Your task to perform on an android device: Go to CNN.com Image 0: 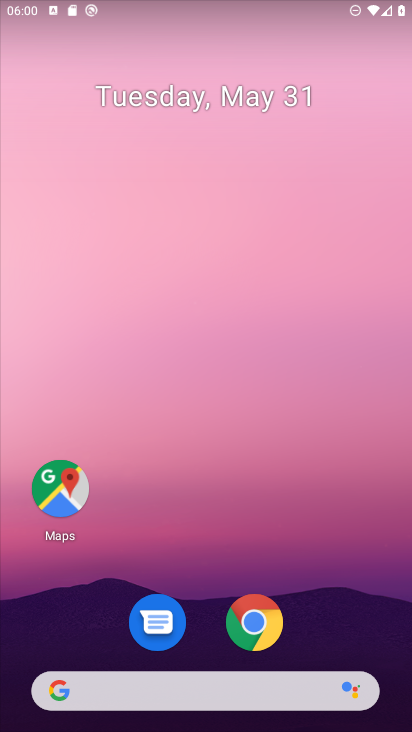
Step 0: drag from (309, 566) to (388, 2)
Your task to perform on an android device: Go to CNN.com Image 1: 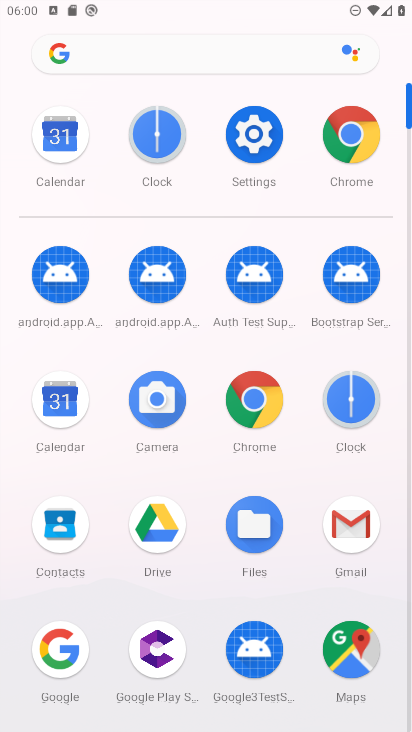
Step 1: click (260, 412)
Your task to perform on an android device: Go to CNN.com Image 2: 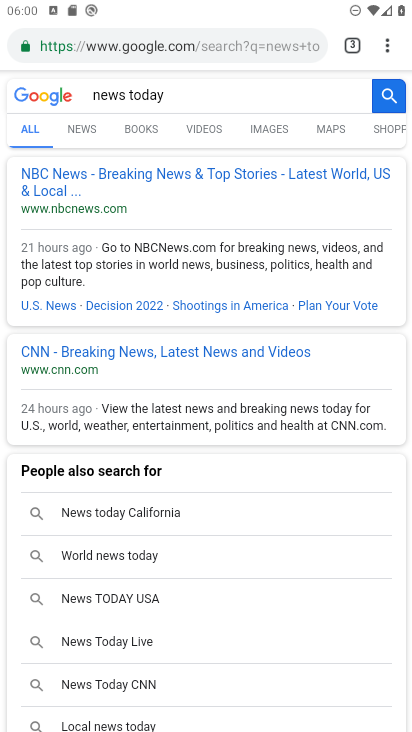
Step 2: click (272, 47)
Your task to perform on an android device: Go to CNN.com Image 3: 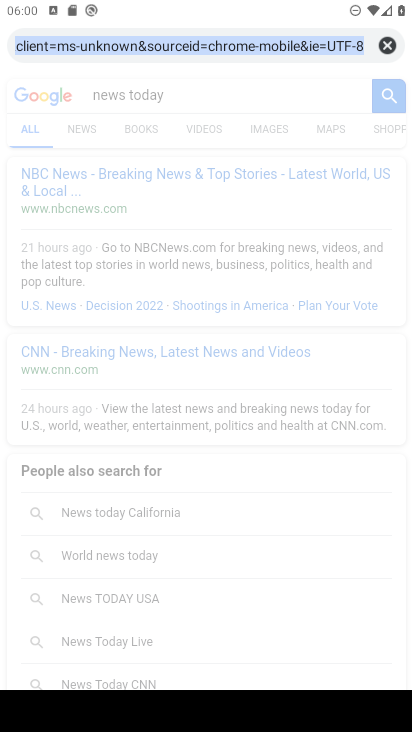
Step 3: type "cnn.com"
Your task to perform on an android device: Go to CNN.com Image 4: 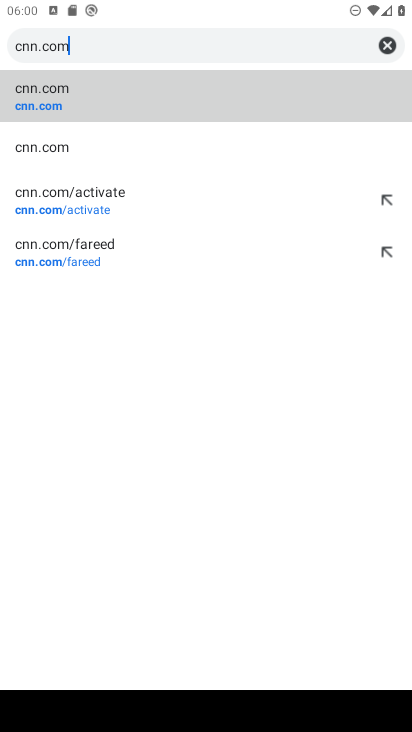
Step 4: click (125, 97)
Your task to perform on an android device: Go to CNN.com Image 5: 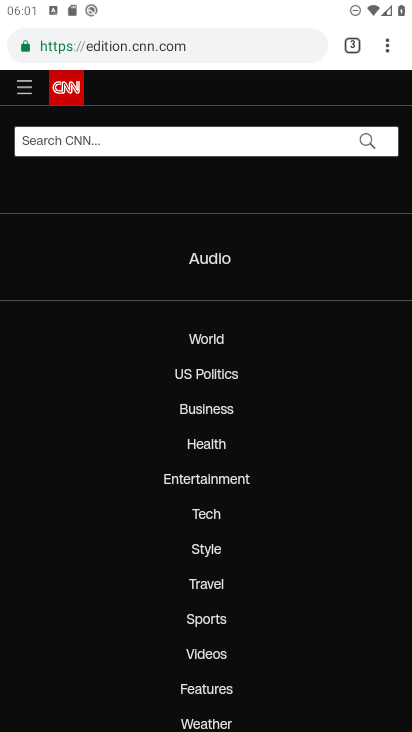
Step 5: task complete